Your task to perform on an android device: Clear all items from cart on walmart. Search for "usb-a to usb-b" on walmart, select the first entry, add it to the cart, then select checkout. Image 0: 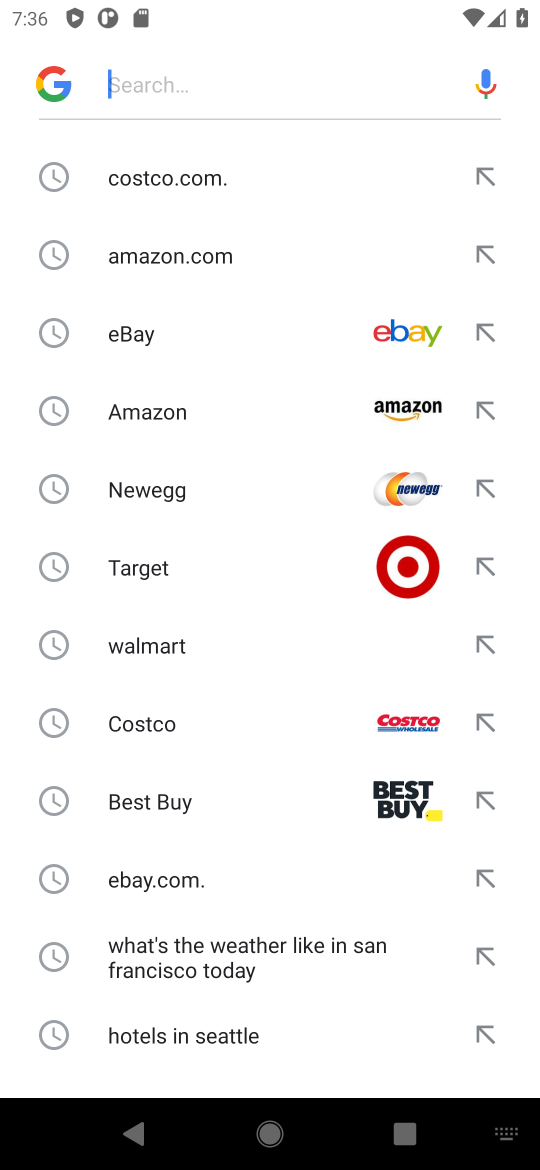
Step 0: type "walmart.com"
Your task to perform on an android device: Clear all items from cart on walmart. Search for "usb-a to usb-b" on walmart, select the first entry, add it to the cart, then select checkout. Image 1: 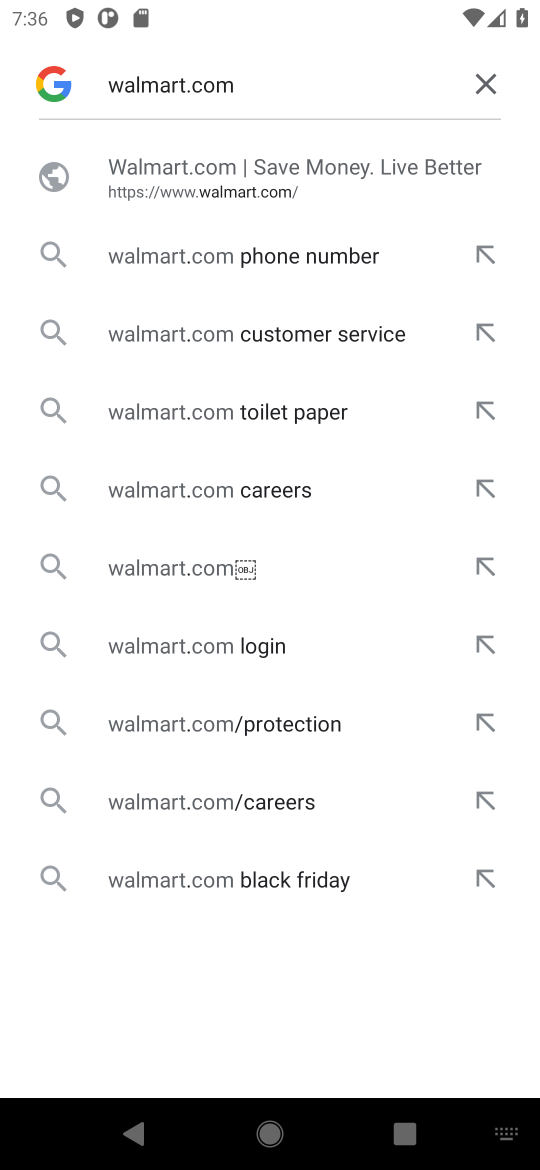
Step 1: click (156, 199)
Your task to perform on an android device: Clear all items from cart on walmart. Search for "usb-a to usb-b" on walmart, select the first entry, add it to the cart, then select checkout. Image 2: 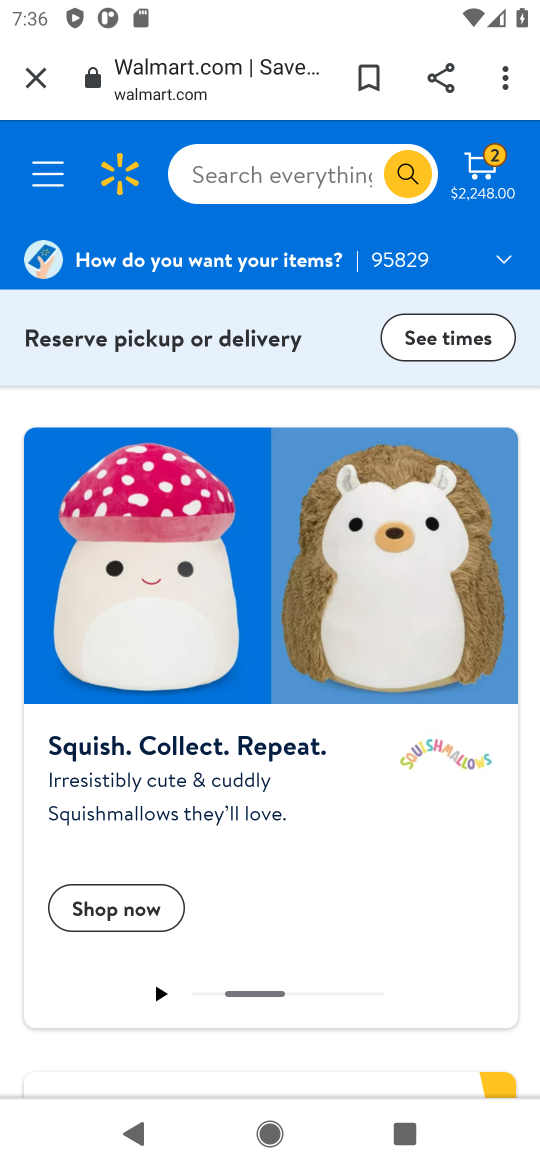
Step 2: click (465, 178)
Your task to perform on an android device: Clear all items from cart on walmart. Search for "usb-a to usb-b" on walmart, select the first entry, add it to the cart, then select checkout. Image 3: 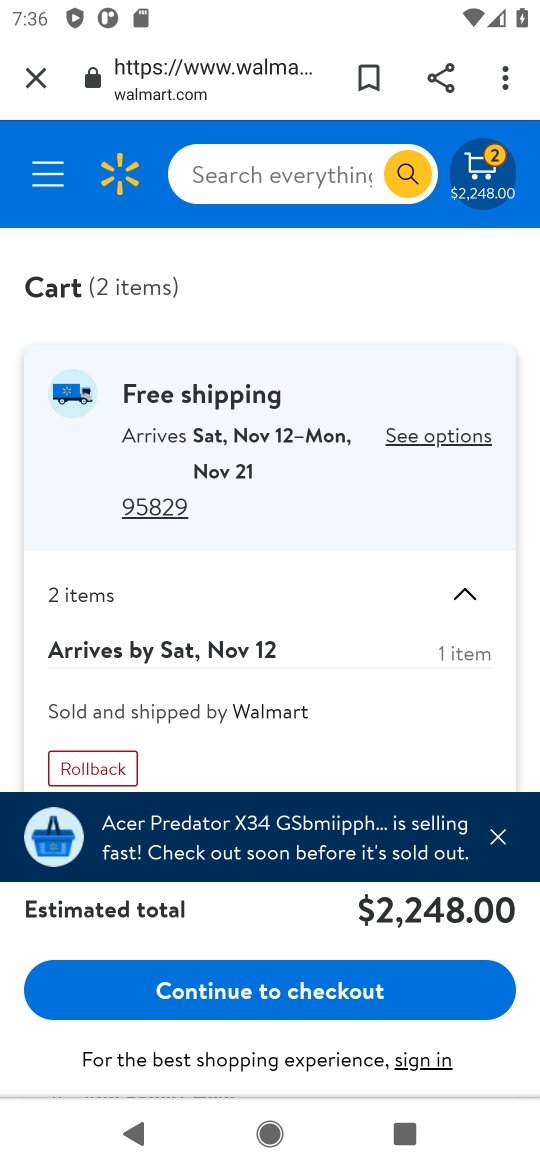
Step 3: drag from (267, 714) to (269, 357)
Your task to perform on an android device: Clear all items from cart on walmart. Search for "usb-a to usb-b" on walmart, select the first entry, add it to the cart, then select checkout. Image 4: 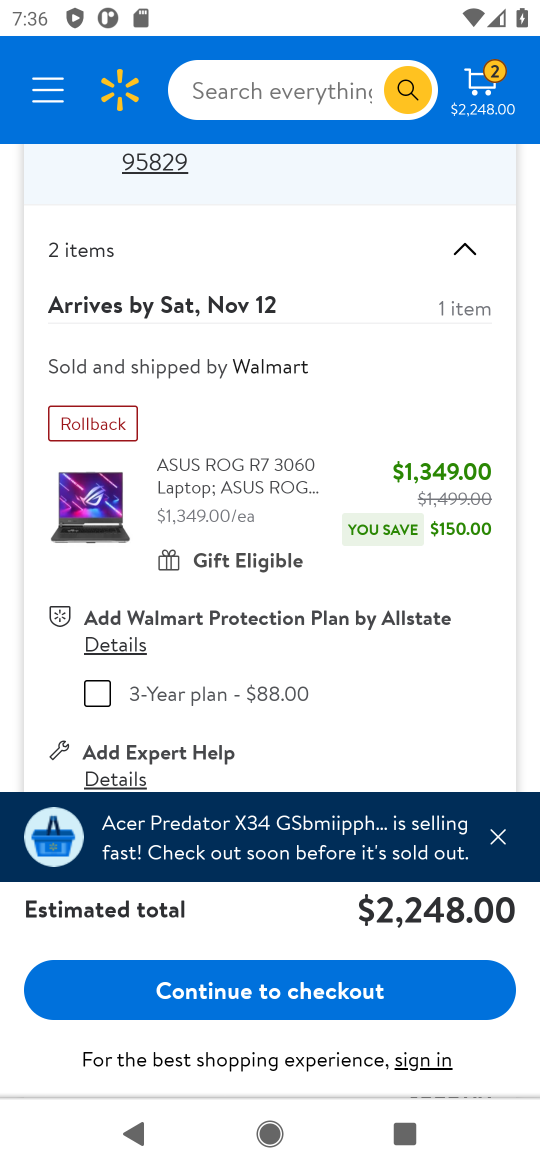
Step 4: drag from (269, 672) to (269, 448)
Your task to perform on an android device: Clear all items from cart on walmart. Search for "usb-a to usb-b" on walmart, select the first entry, add it to the cart, then select checkout. Image 5: 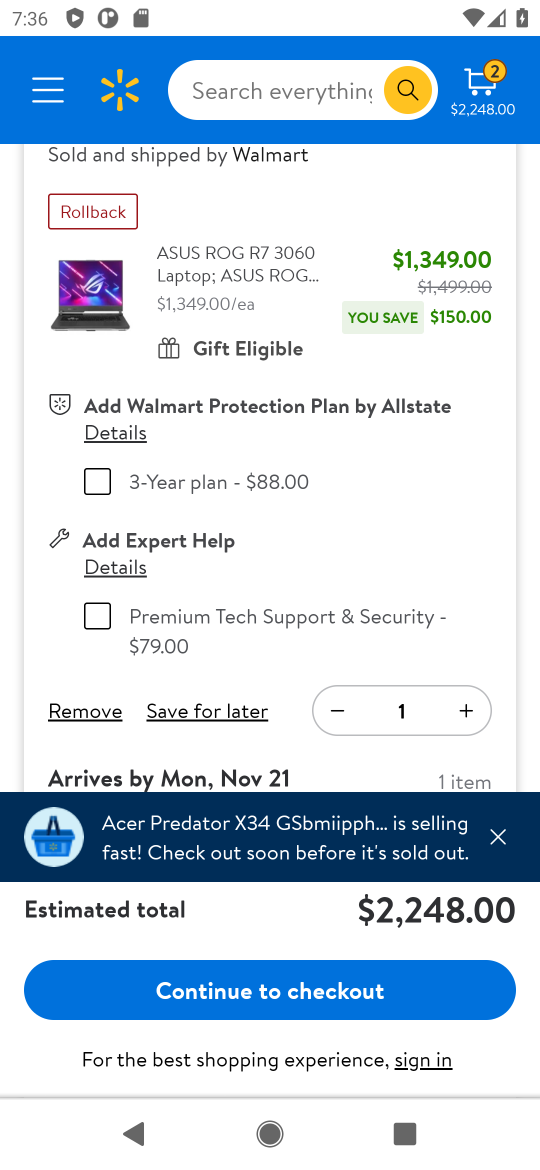
Step 5: click (93, 710)
Your task to perform on an android device: Clear all items from cart on walmart. Search for "usb-a to usb-b" on walmart, select the first entry, add it to the cart, then select checkout. Image 6: 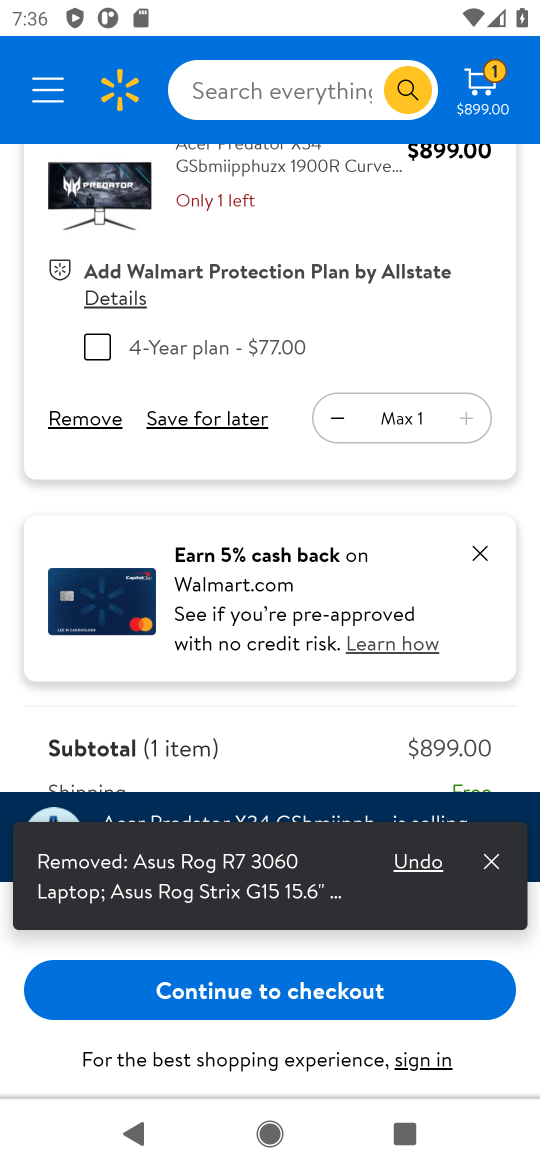
Step 6: click (96, 423)
Your task to perform on an android device: Clear all items from cart on walmart. Search for "usb-a to usb-b" on walmart, select the first entry, add it to the cart, then select checkout. Image 7: 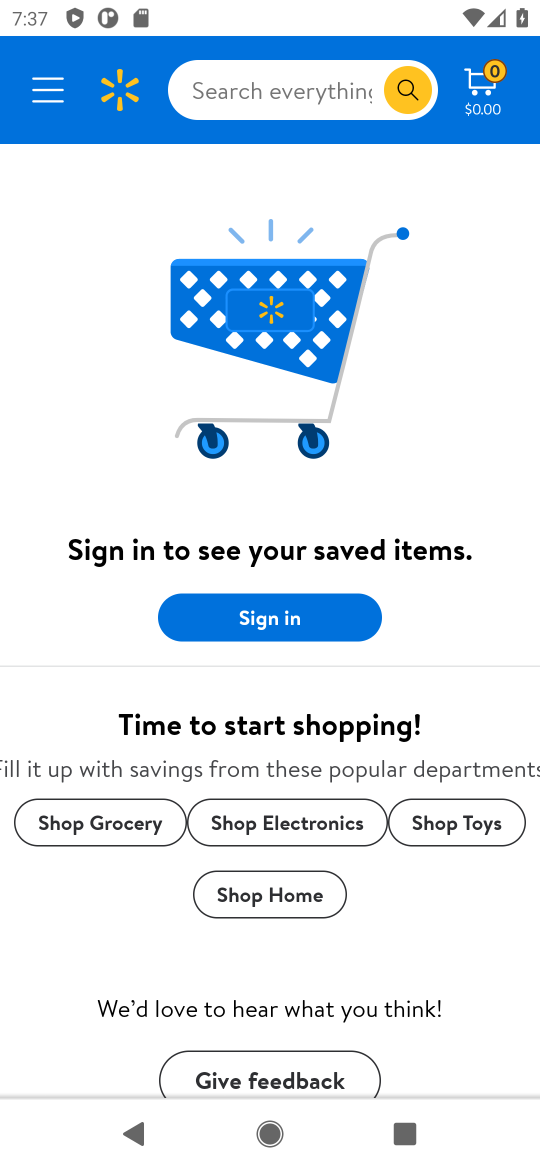
Step 7: click (285, 94)
Your task to perform on an android device: Clear all items from cart on walmart. Search for "usb-a to usb-b" on walmart, select the first entry, add it to the cart, then select checkout. Image 8: 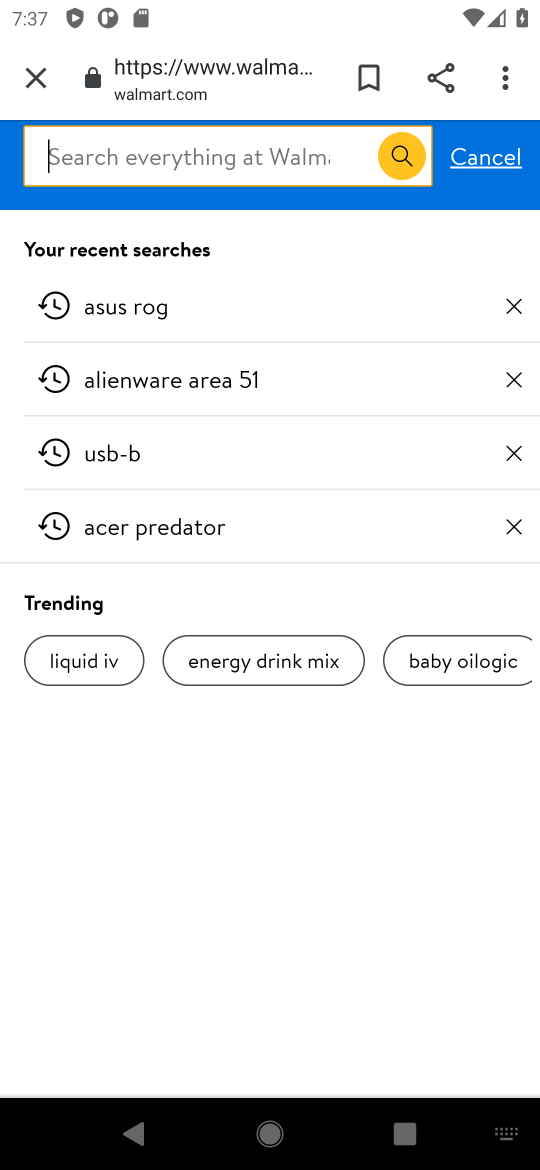
Step 8: type "usb-a to usb-b"
Your task to perform on an android device: Clear all items from cart on walmart. Search for "usb-a to usb-b" on walmart, select the first entry, add it to the cart, then select checkout. Image 9: 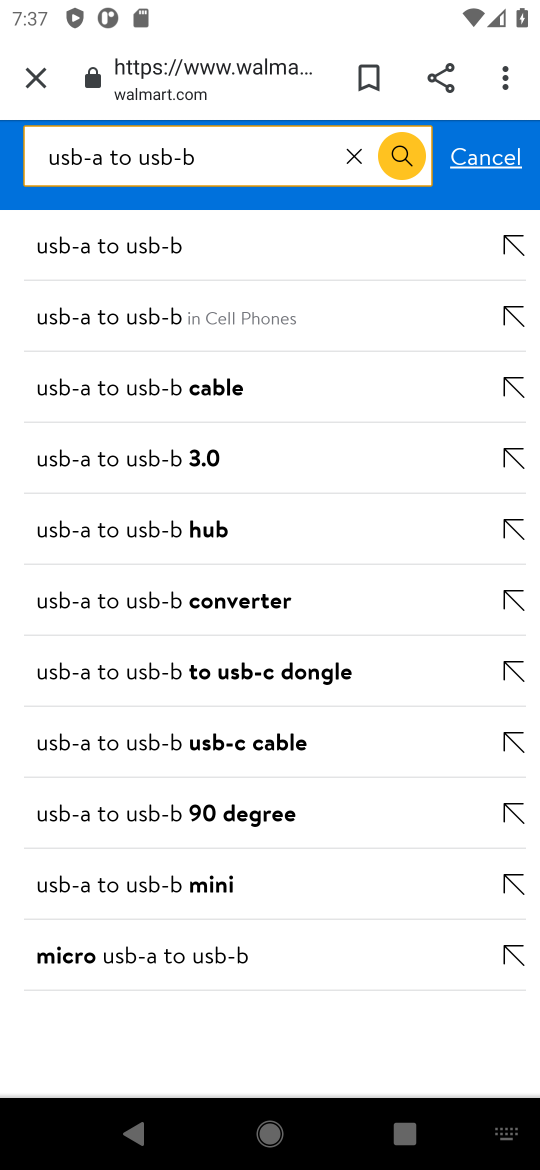
Step 9: click (122, 250)
Your task to perform on an android device: Clear all items from cart on walmart. Search for "usb-a to usb-b" on walmart, select the first entry, add it to the cart, then select checkout. Image 10: 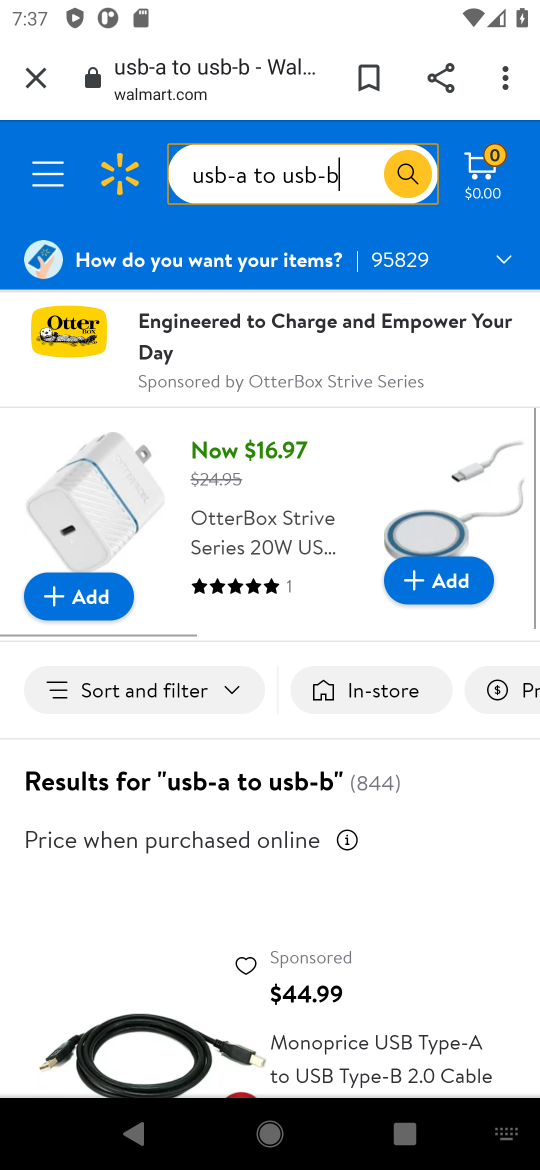
Step 10: drag from (134, 826) to (100, 450)
Your task to perform on an android device: Clear all items from cart on walmart. Search for "usb-a to usb-b" on walmart, select the first entry, add it to the cart, then select checkout. Image 11: 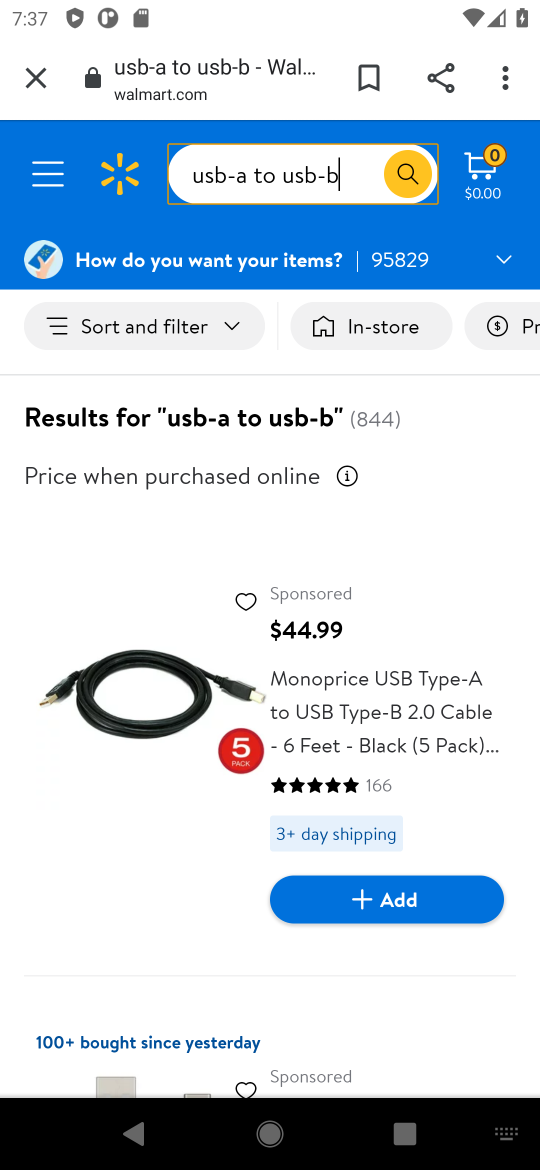
Step 11: click (443, 893)
Your task to perform on an android device: Clear all items from cart on walmart. Search for "usb-a to usb-b" on walmart, select the first entry, add it to the cart, then select checkout. Image 12: 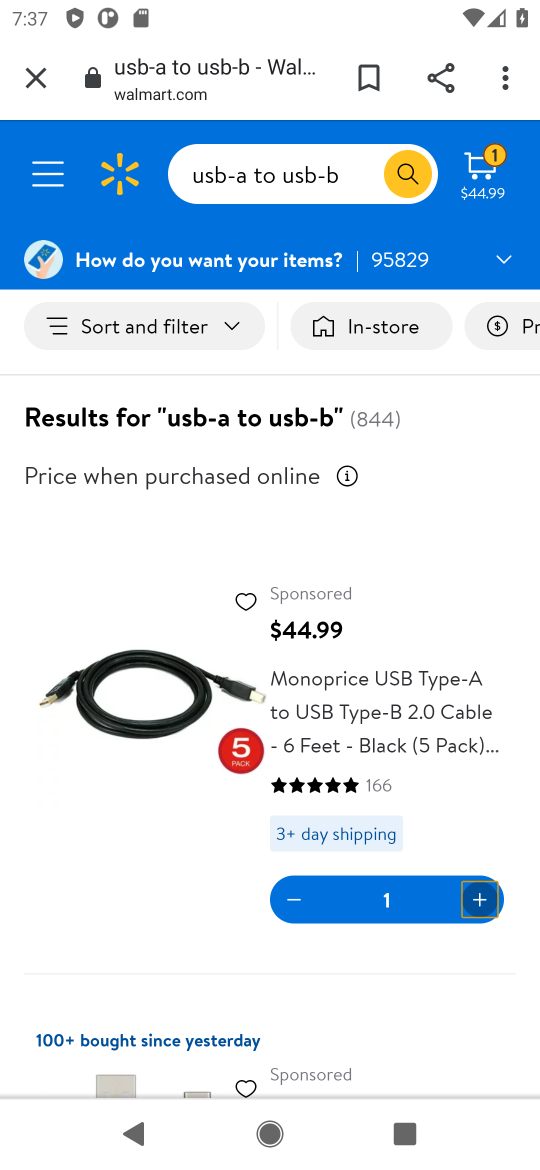
Step 12: click (482, 182)
Your task to perform on an android device: Clear all items from cart on walmart. Search for "usb-a to usb-b" on walmart, select the first entry, add it to the cart, then select checkout. Image 13: 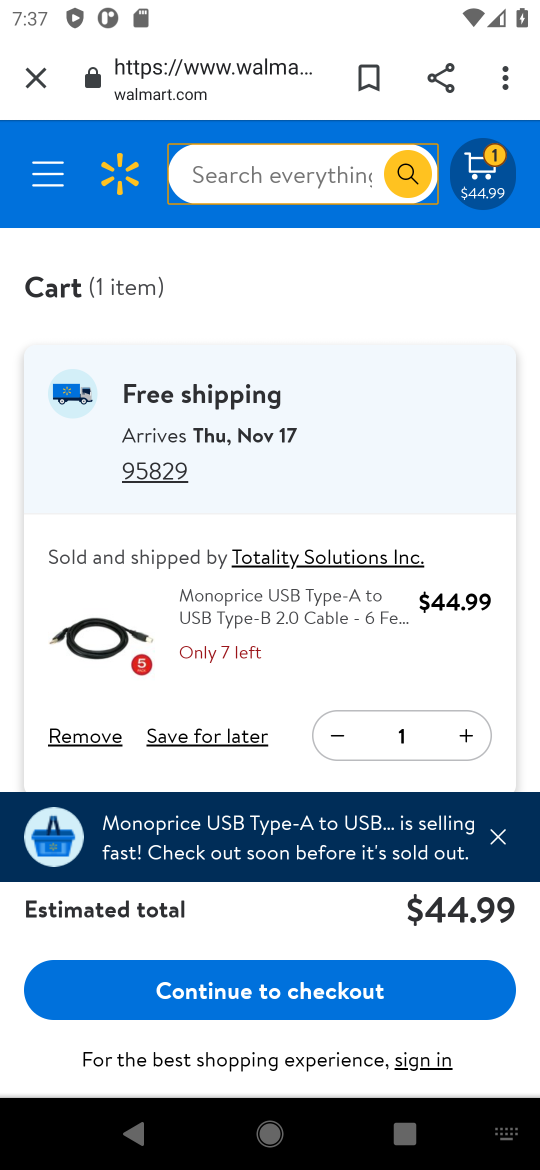
Step 13: click (275, 995)
Your task to perform on an android device: Clear all items from cart on walmart. Search for "usb-a to usb-b" on walmart, select the first entry, add it to the cart, then select checkout. Image 14: 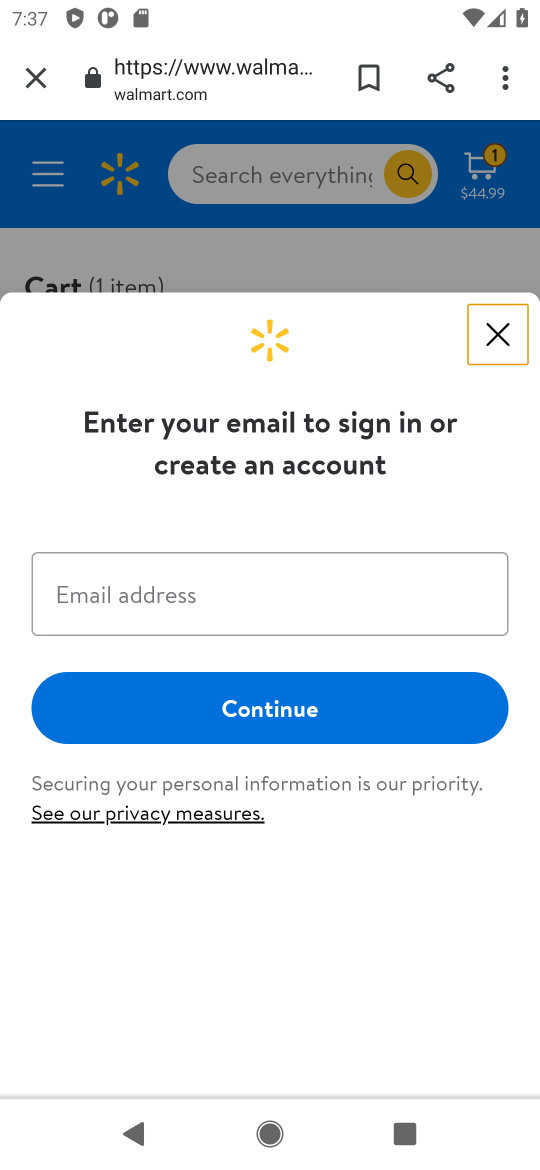
Step 14: task complete